Your task to perform on an android device: Go to sound settings Image 0: 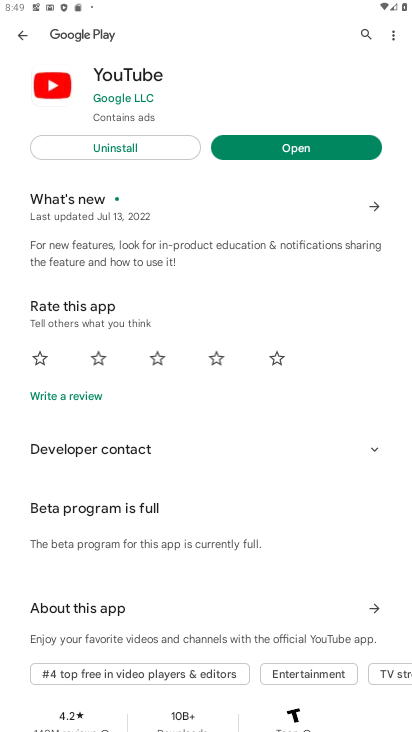
Step 0: press home button
Your task to perform on an android device: Go to sound settings Image 1: 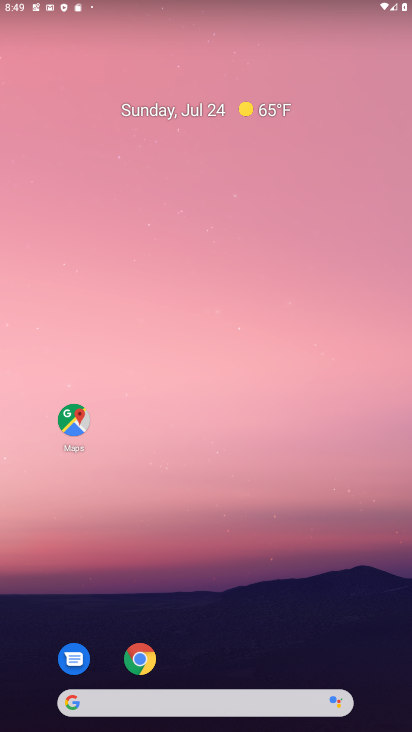
Step 1: drag from (263, 676) to (262, 3)
Your task to perform on an android device: Go to sound settings Image 2: 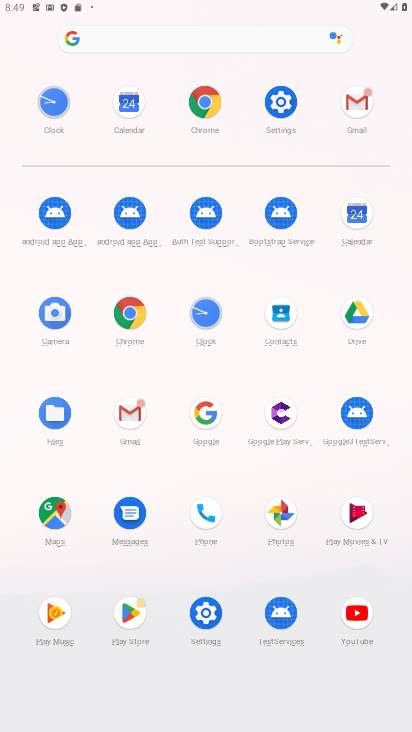
Step 2: click (282, 93)
Your task to perform on an android device: Go to sound settings Image 3: 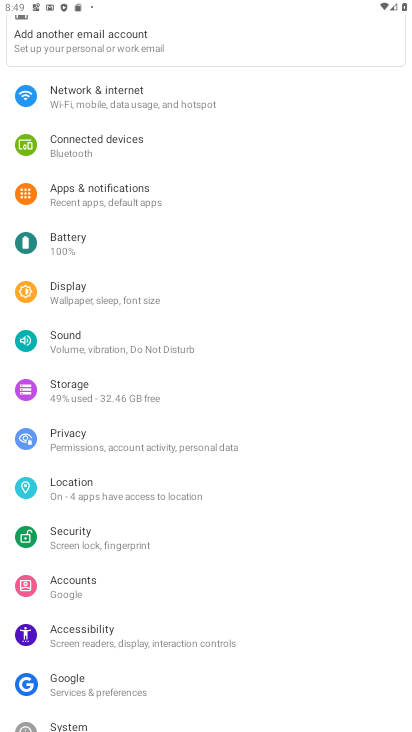
Step 3: click (69, 338)
Your task to perform on an android device: Go to sound settings Image 4: 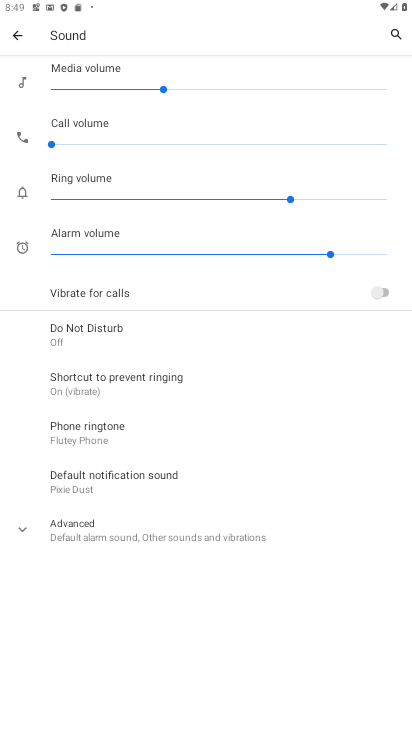
Step 4: task complete